Your task to perform on an android device: set the stopwatch Image 0: 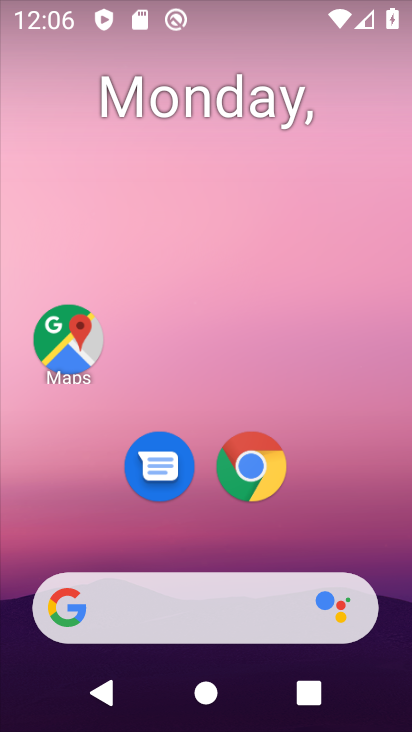
Step 0: drag from (353, 490) to (314, 35)
Your task to perform on an android device: set the stopwatch Image 1: 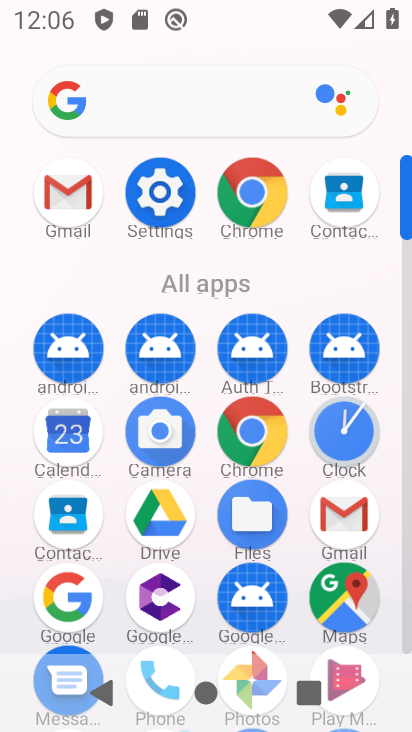
Step 1: click (335, 423)
Your task to perform on an android device: set the stopwatch Image 2: 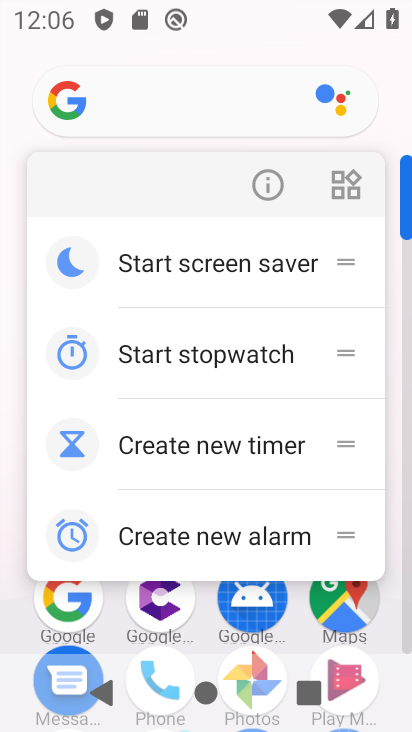
Step 2: click (14, 121)
Your task to perform on an android device: set the stopwatch Image 3: 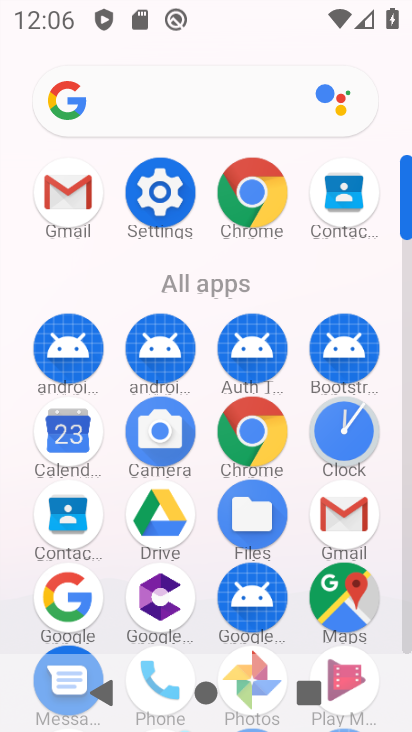
Step 3: click (337, 448)
Your task to perform on an android device: set the stopwatch Image 4: 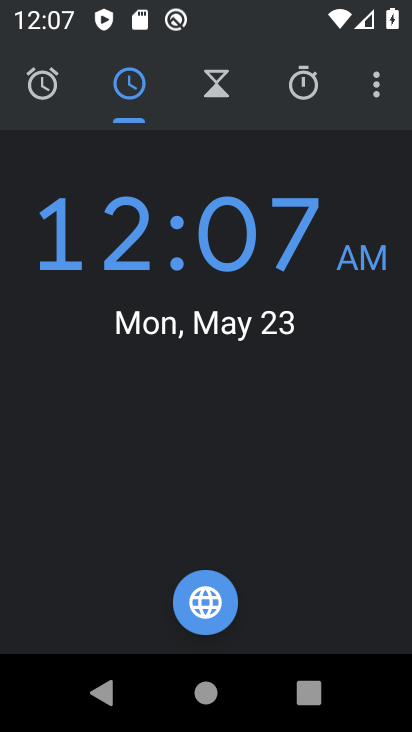
Step 4: click (281, 67)
Your task to perform on an android device: set the stopwatch Image 5: 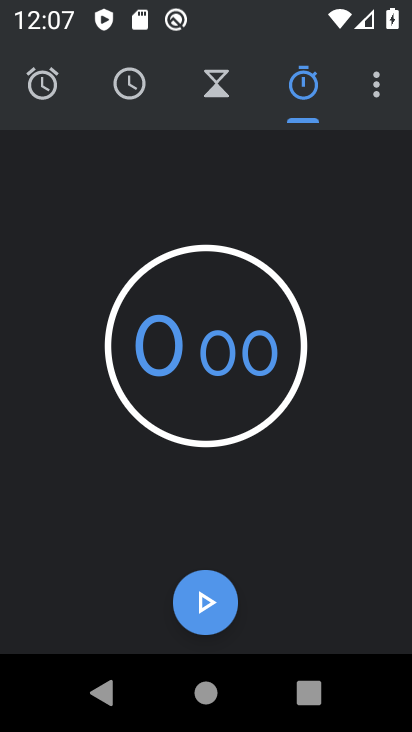
Step 5: task complete